Your task to perform on an android device: See recent photos Image 0: 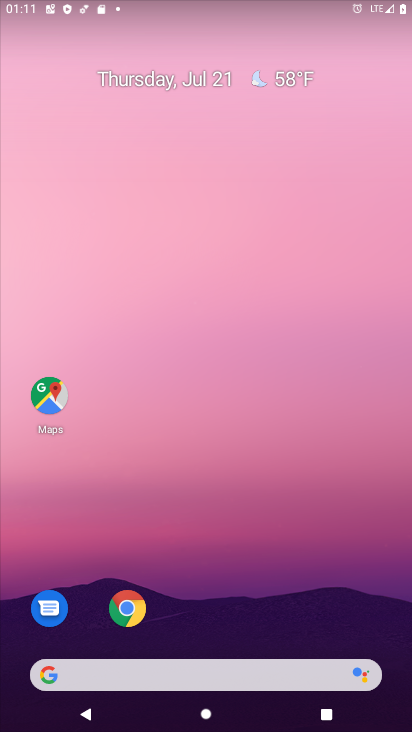
Step 0: press home button
Your task to perform on an android device: See recent photos Image 1: 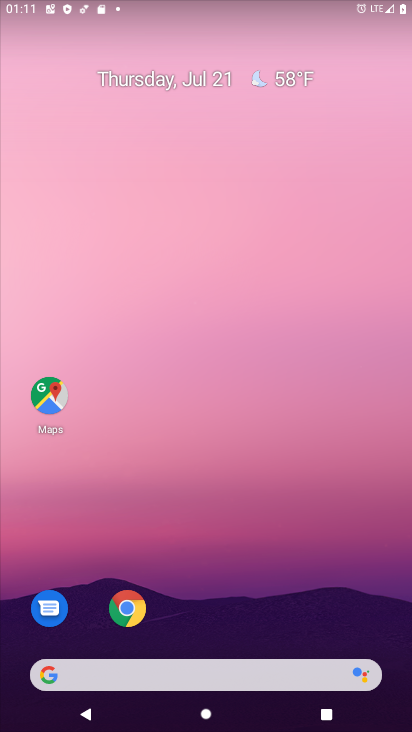
Step 1: drag from (223, 633) to (267, 75)
Your task to perform on an android device: See recent photos Image 2: 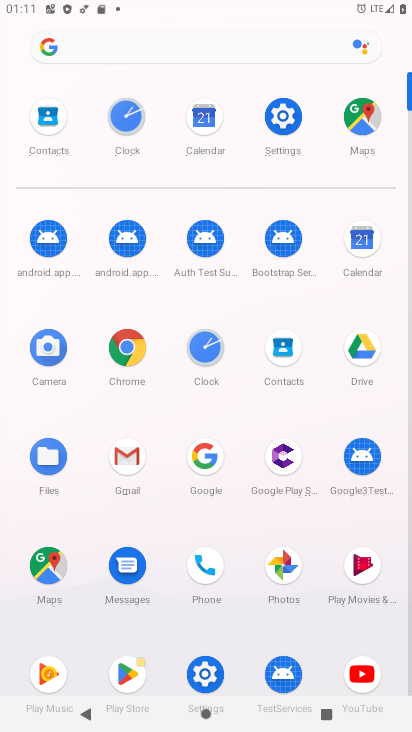
Step 2: click (282, 557)
Your task to perform on an android device: See recent photos Image 3: 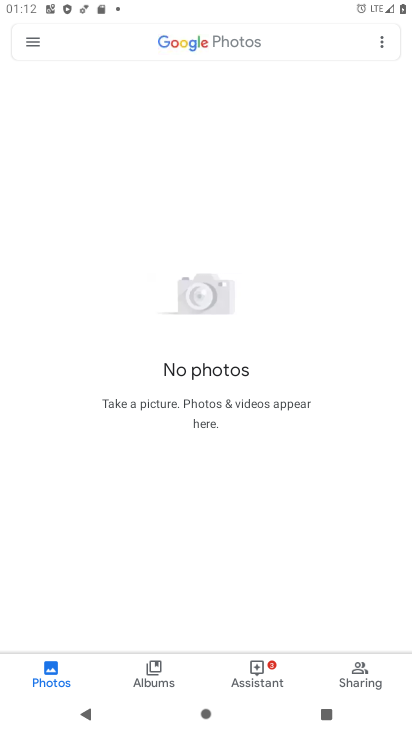
Step 3: task complete